Your task to perform on an android device: move a message to another label in the gmail app Image 0: 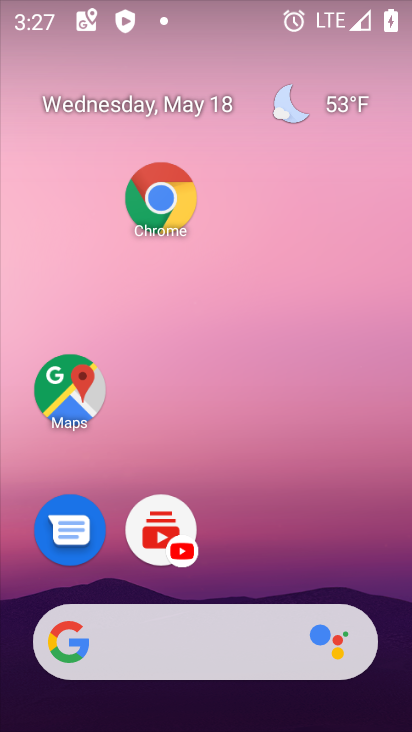
Step 0: drag from (312, 689) to (176, 52)
Your task to perform on an android device: move a message to another label in the gmail app Image 1: 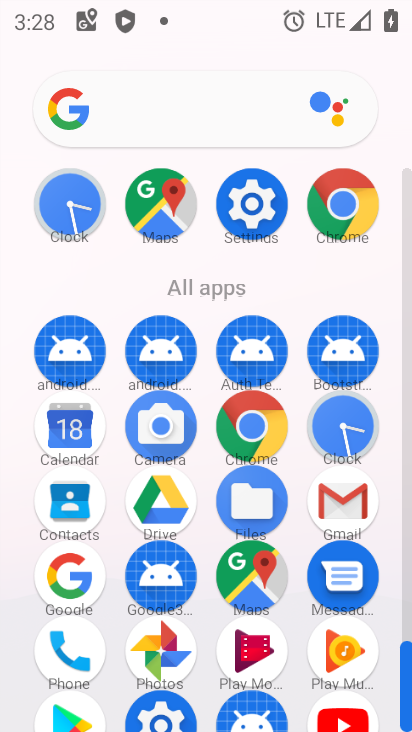
Step 1: click (345, 500)
Your task to perform on an android device: move a message to another label in the gmail app Image 2: 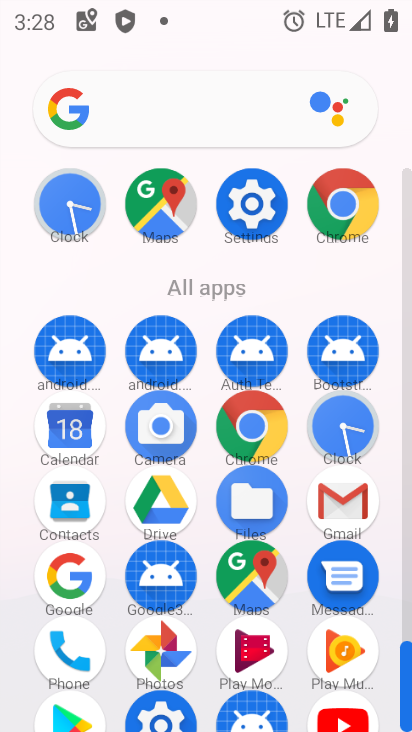
Step 2: click (346, 501)
Your task to perform on an android device: move a message to another label in the gmail app Image 3: 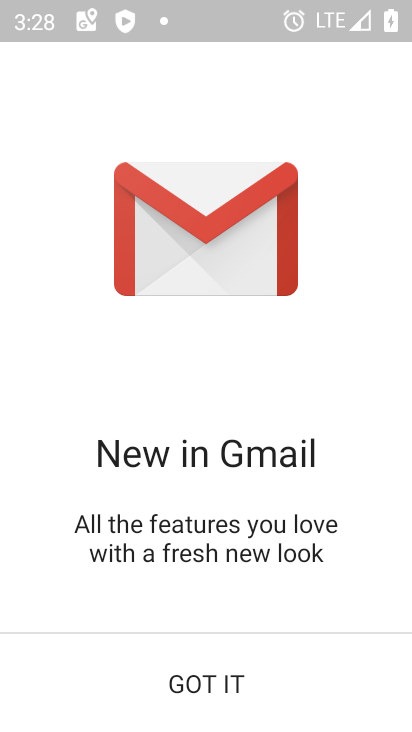
Step 3: click (246, 673)
Your task to perform on an android device: move a message to another label in the gmail app Image 4: 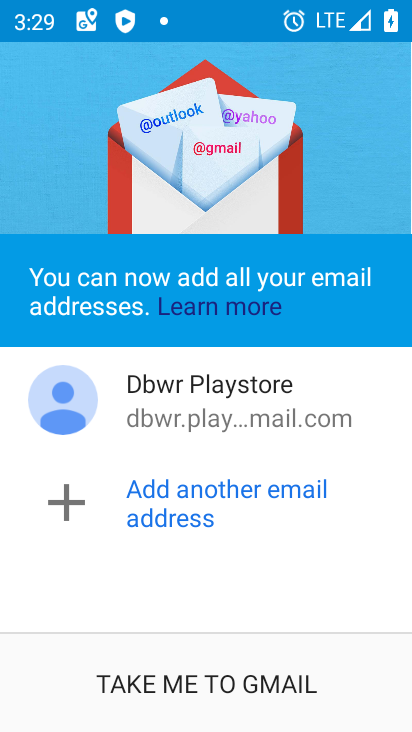
Step 4: drag from (268, 678) to (213, 81)
Your task to perform on an android device: move a message to another label in the gmail app Image 5: 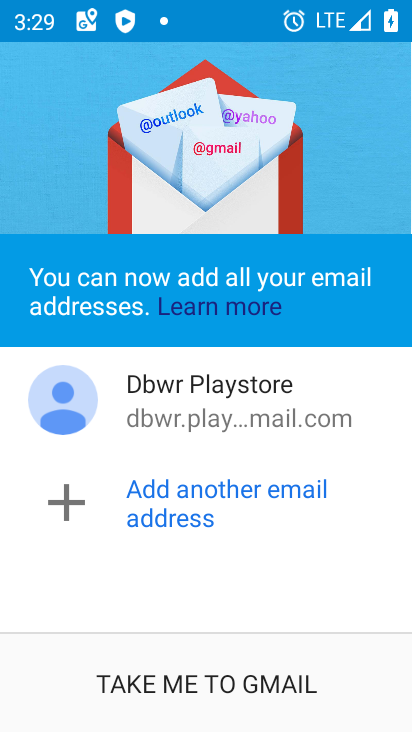
Step 5: click (203, 682)
Your task to perform on an android device: move a message to another label in the gmail app Image 6: 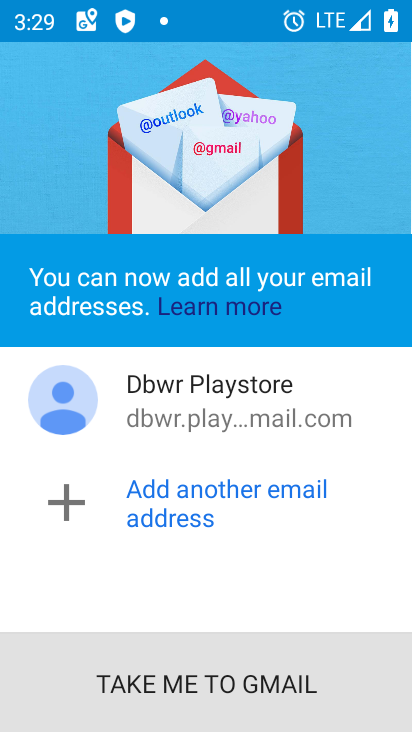
Step 6: click (203, 682)
Your task to perform on an android device: move a message to another label in the gmail app Image 7: 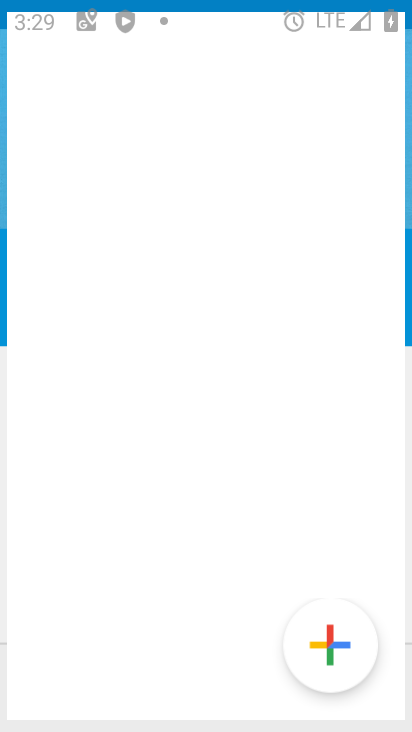
Step 7: click (203, 683)
Your task to perform on an android device: move a message to another label in the gmail app Image 8: 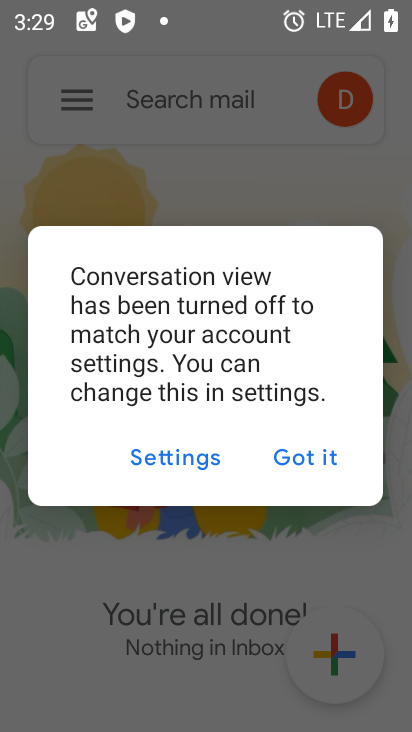
Step 8: click (175, 457)
Your task to perform on an android device: move a message to another label in the gmail app Image 9: 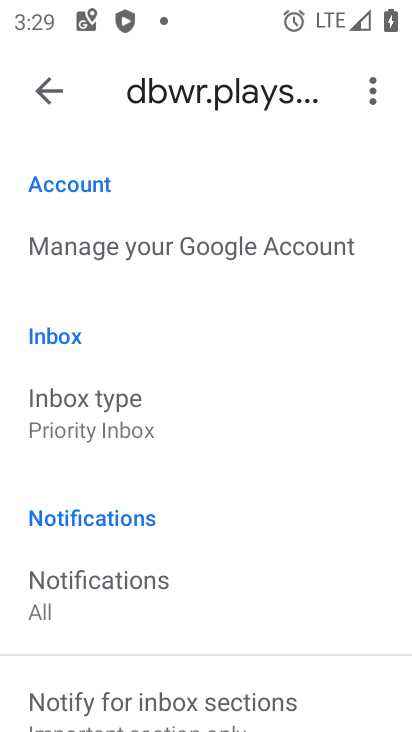
Step 9: drag from (113, 518) to (113, 98)
Your task to perform on an android device: move a message to another label in the gmail app Image 10: 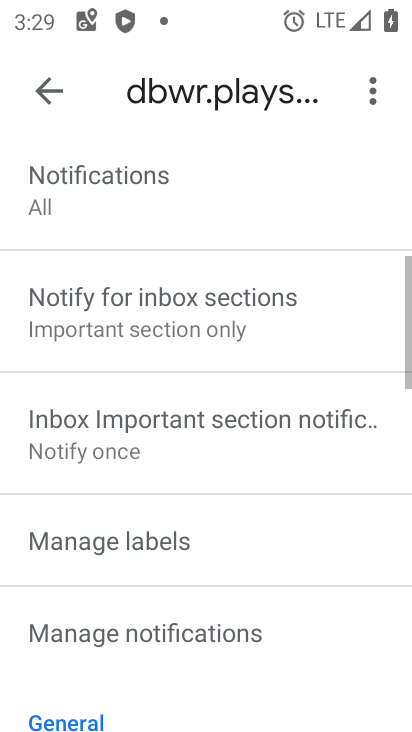
Step 10: click (39, 92)
Your task to perform on an android device: move a message to another label in the gmail app Image 11: 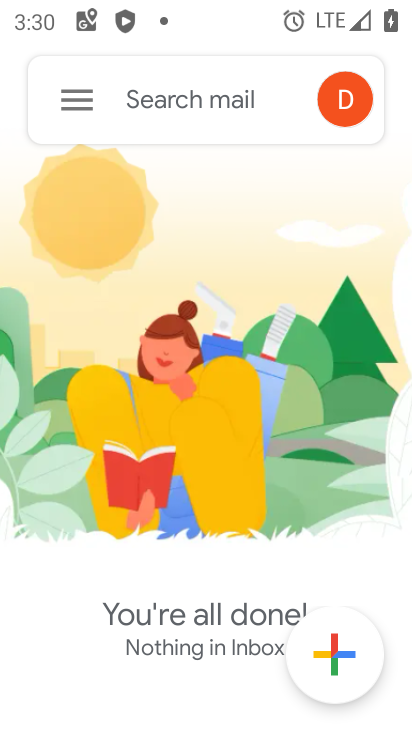
Step 11: click (77, 94)
Your task to perform on an android device: move a message to another label in the gmail app Image 12: 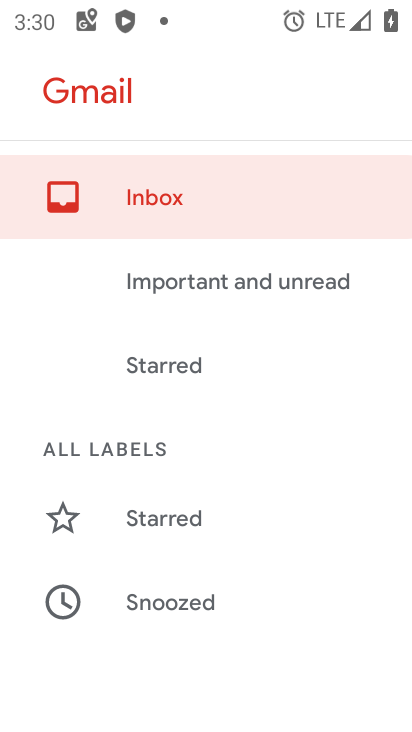
Step 12: drag from (182, 547) to (164, 103)
Your task to perform on an android device: move a message to another label in the gmail app Image 13: 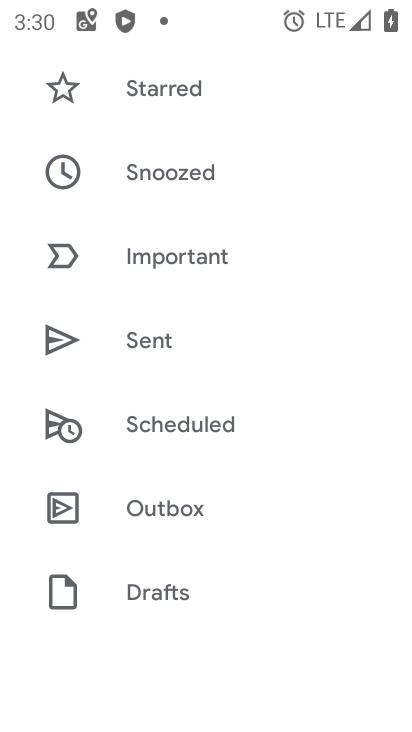
Step 13: drag from (232, 407) to (230, 74)
Your task to perform on an android device: move a message to another label in the gmail app Image 14: 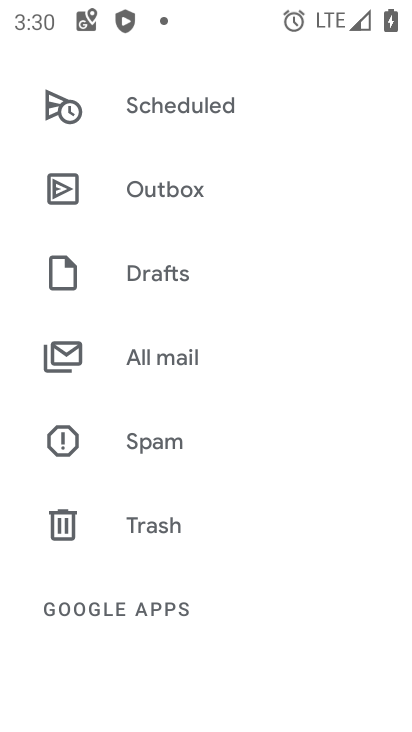
Step 14: click (143, 361)
Your task to perform on an android device: move a message to another label in the gmail app Image 15: 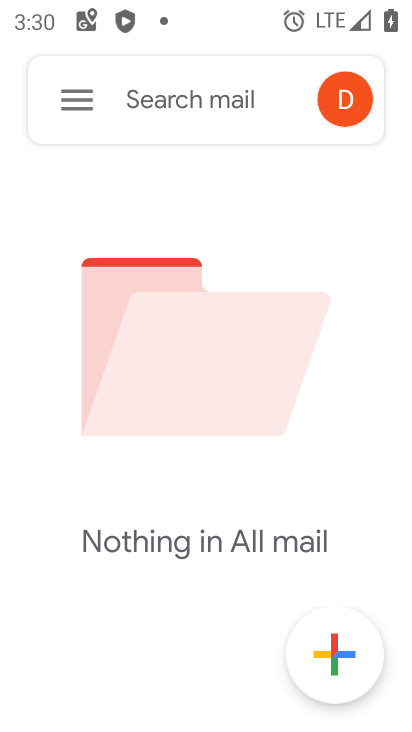
Step 15: task complete